Your task to perform on an android device: Open eBay Image 0: 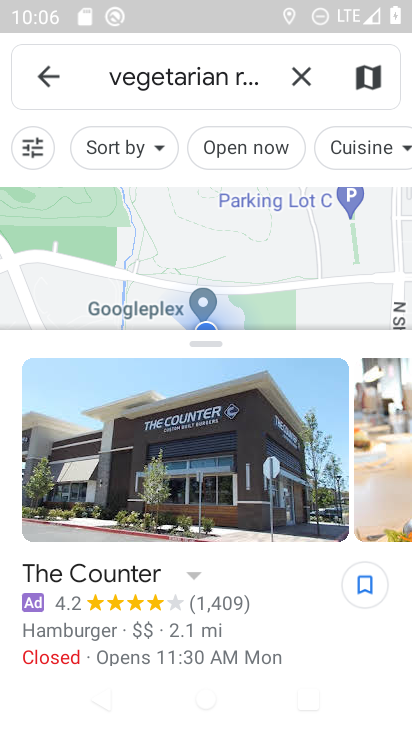
Step 0: press home button
Your task to perform on an android device: Open eBay Image 1: 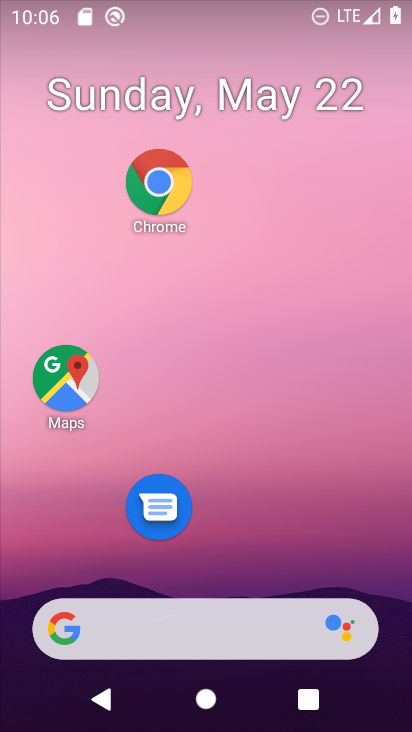
Step 1: click (184, 619)
Your task to perform on an android device: Open eBay Image 2: 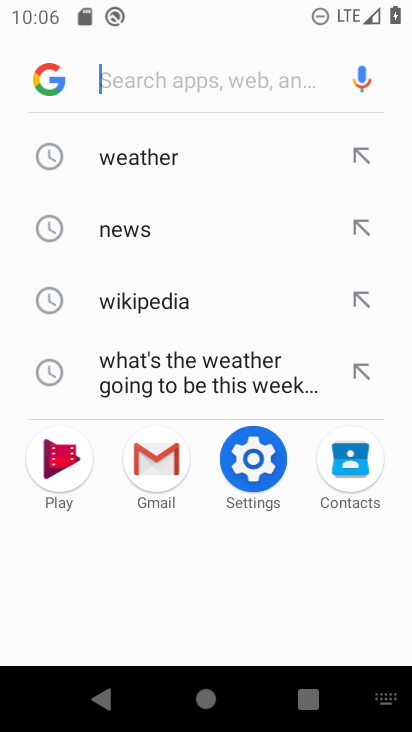
Step 2: type "ebay"
Your task to perform on an android device: Open eBay Image 3: 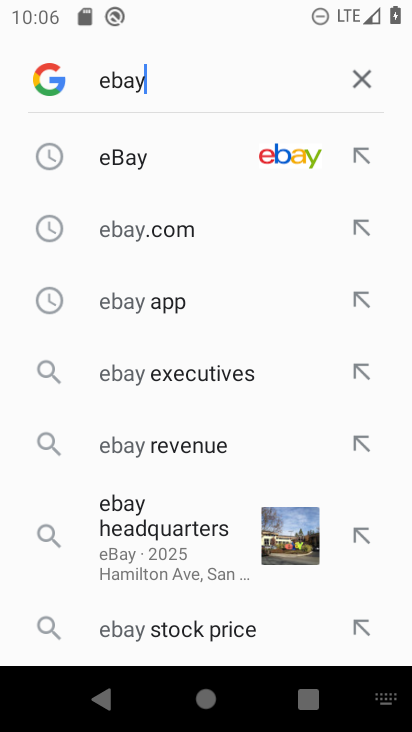
Step 3: click (238, 151)
Your task to perform on an android device: Open eBay Image 4: 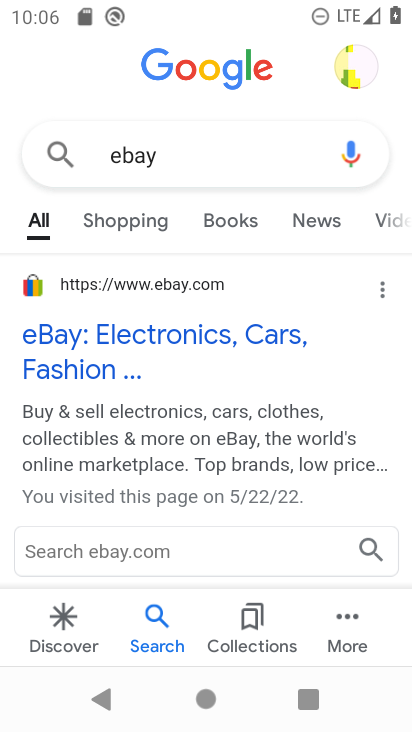
Step 4: click (177, 286)
Your task to perform on an android device: Open eBay Image 5: 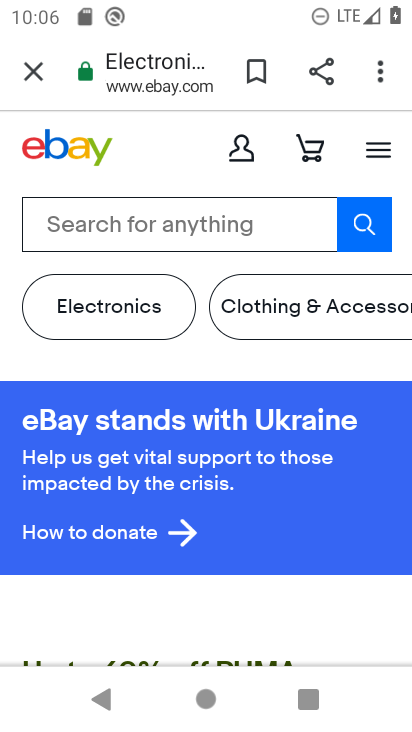
Step 5: task complete